Your task to perform on an android device: allow cookies in the chrome app Image 0: 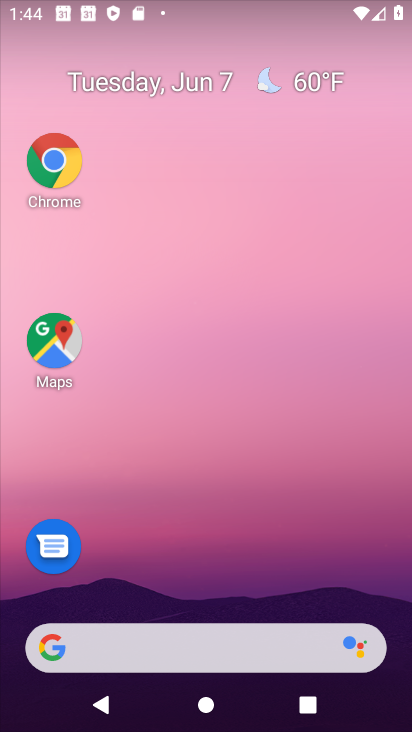
Step 0: click (328, 18)
Your task to perform on an android device: allow cookies in the chrome app Image 1: 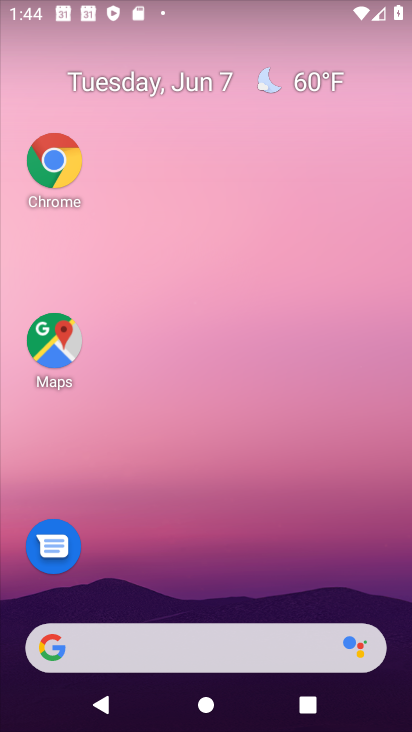
Step 1: drag from (197, 576) to (275, 91)
Your task to perform on an android device: allow cookies in the chrome app Image 2: 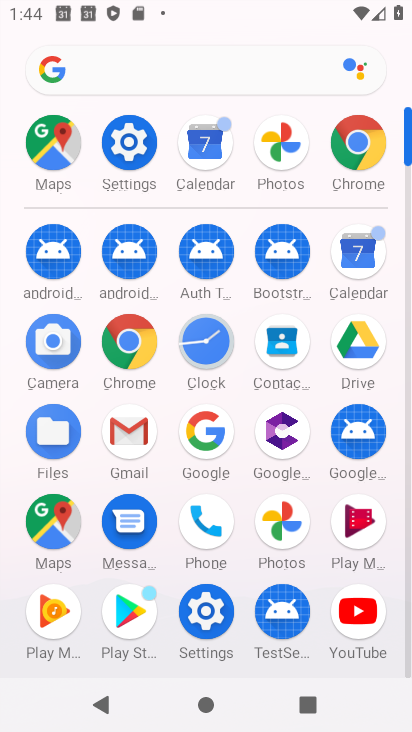
Step 2: click (352, 132)
Your task to perform on an android device: allow cookies in the chrome app Image 3: 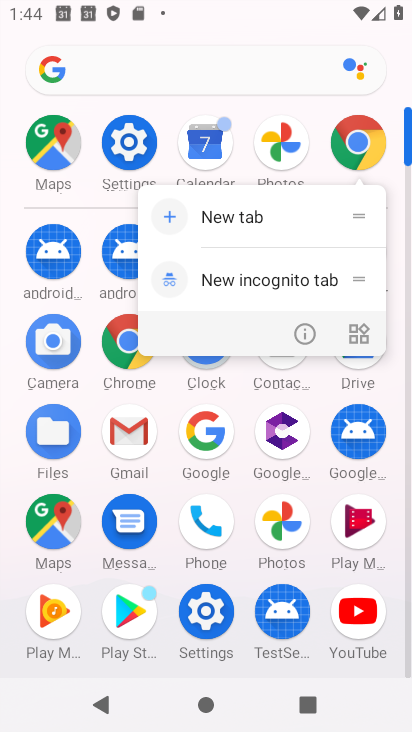
Step 3: click (298, 325)
Your task to perform on an android device: allow cookies in the chrome app Image 4: 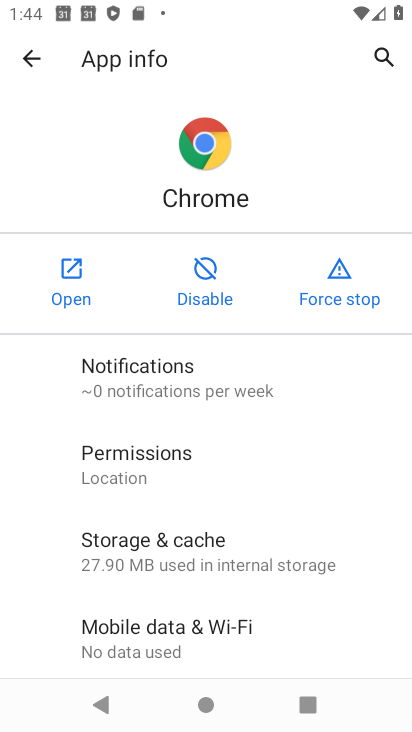
Step 4: click (63, 277)
Your task to perform on an android device: allow cookies in the chrome app Image 5: 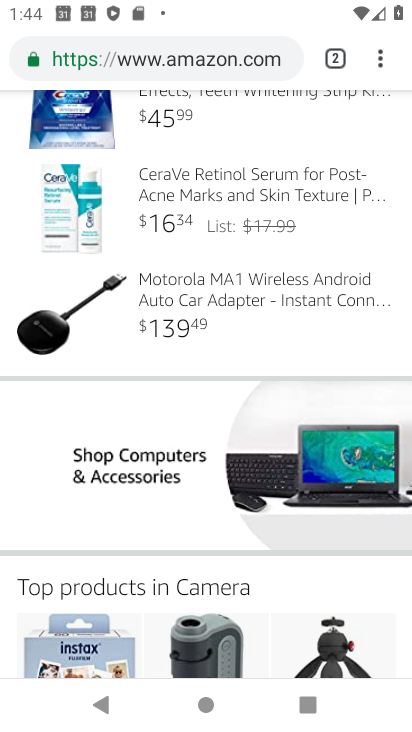
Step 5: click (358, 62)
Your task to perform on an android device: allow cookies in the chrome app Image 6: 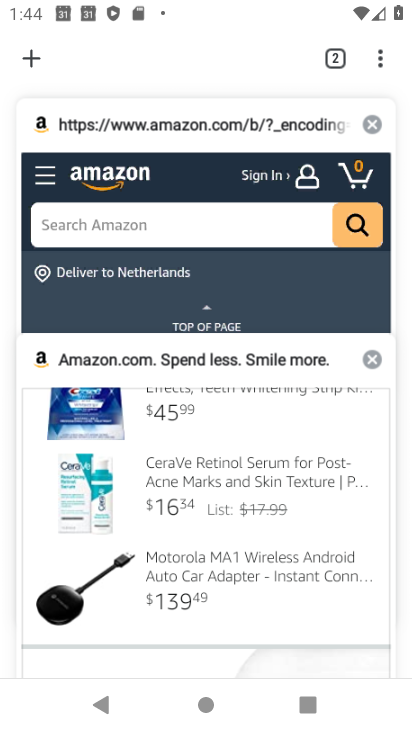
Step 6: click (258, 408)
Your task to perform on an android device: allow cookies in the chrome app Image 7: 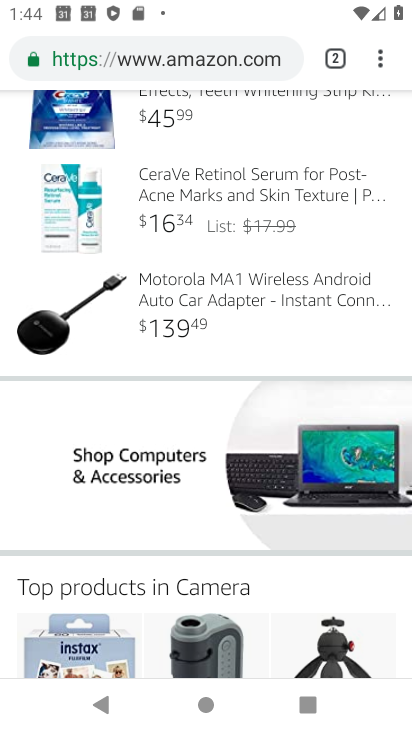
Step 7: click (389, 60)
Your task to perform on an android device: allow cookies in the chrome app Image 8: 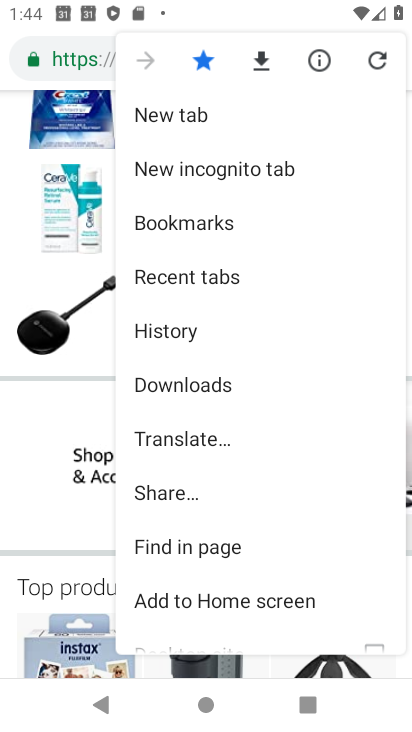
Step 8: drag from (250, 532) to (293, 53)
Your task to perform on an android device: allow cookies in the chrome app Image 9: 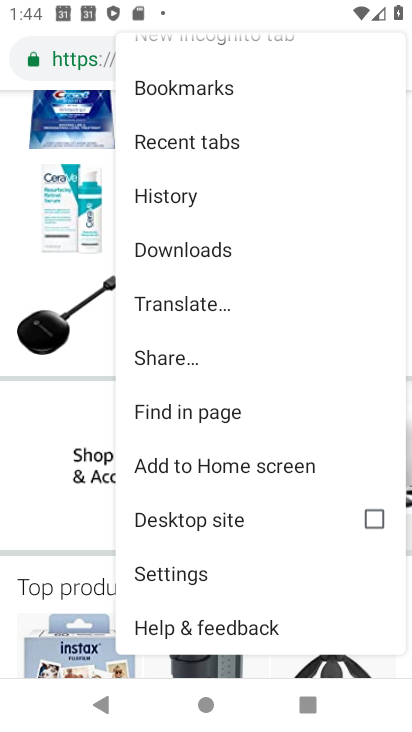
Step 9: click (199, 576)
Your task to perform on an android device: allow cookies in the chrome app Image 10: 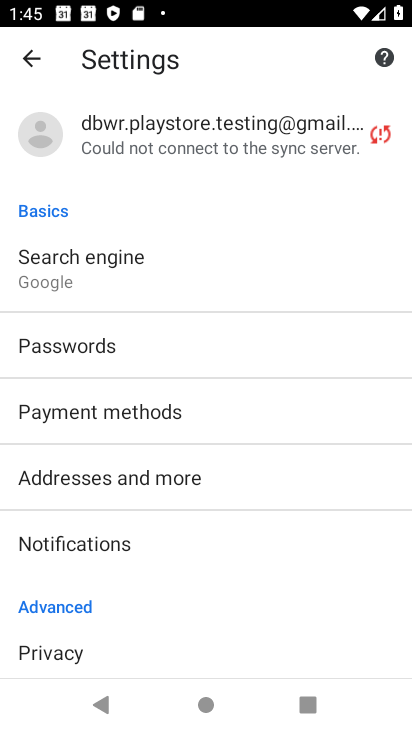
Step 10: drag from (110, 645) to (244, 44)
Your task to perform on an android device: allow cookies in the chrome app Image 11: 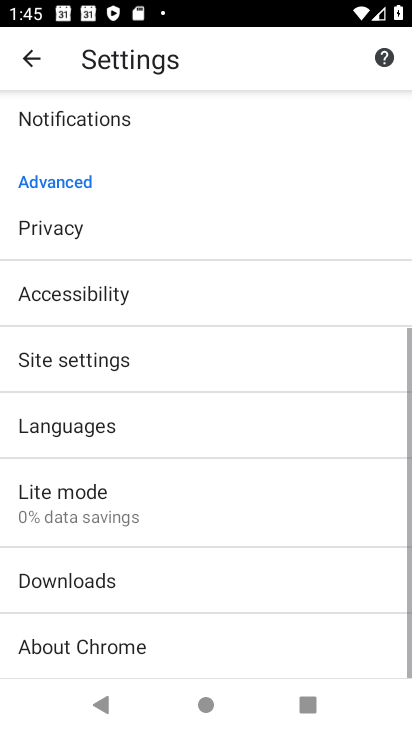
Step 11: click (167, 357)
Your task to perform on an android device: allow cookies in the chrome app Image 12: 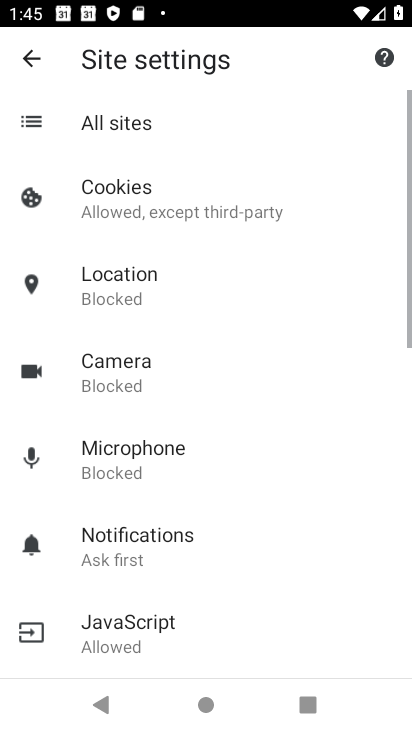
Step 12: click (176, 214)
Your task to perform on an android device: allow cookies in the chrome app Image 13: 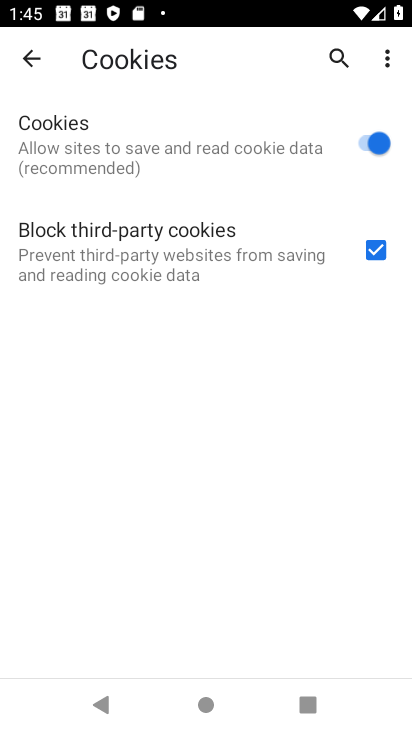
Step 13: task complete